Your task to perform on an android device: clear history in the chrome app Image 0: 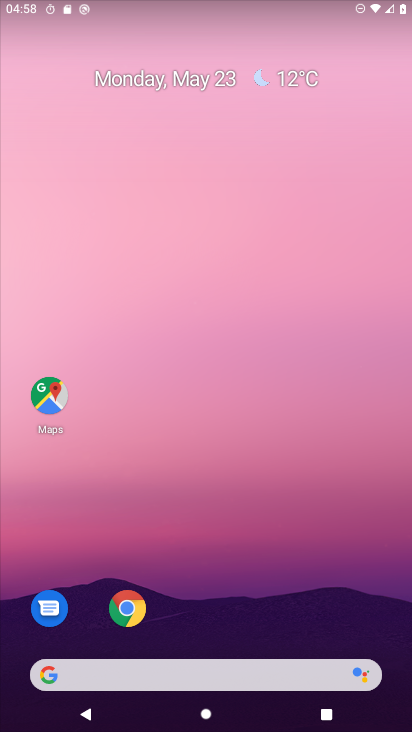
Step 0: click (133, 604)
Your task to perform on an android device: clear history in the chrome app Image 1: 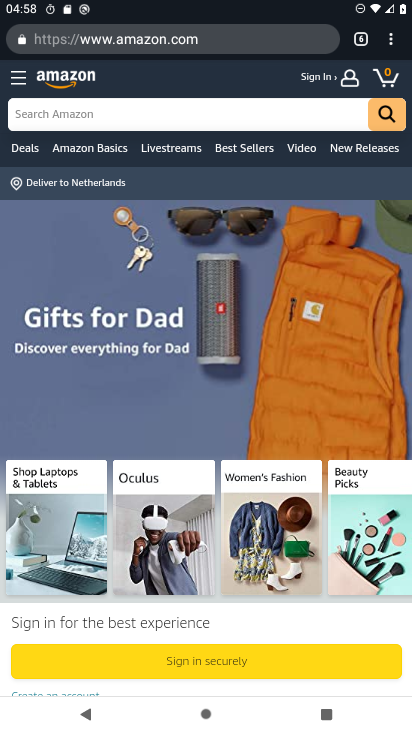
Step 1: click (385, 43)
Your task to perform on an android device: clear history in the chrome app Image 2: 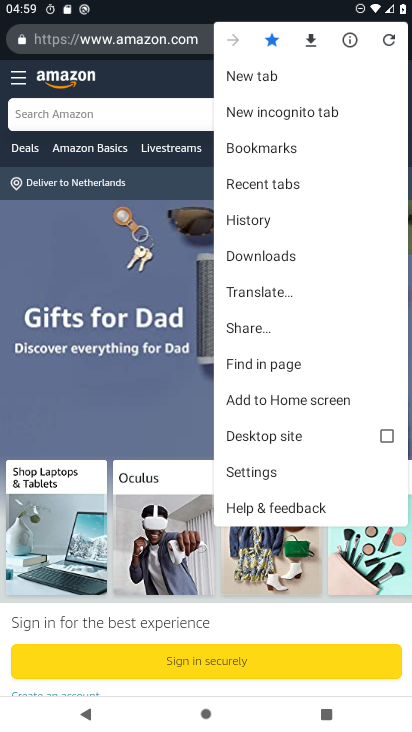
Step 2: click (275, 467)
Your task to perform on an android device: clear history in the chrome app Image 3: 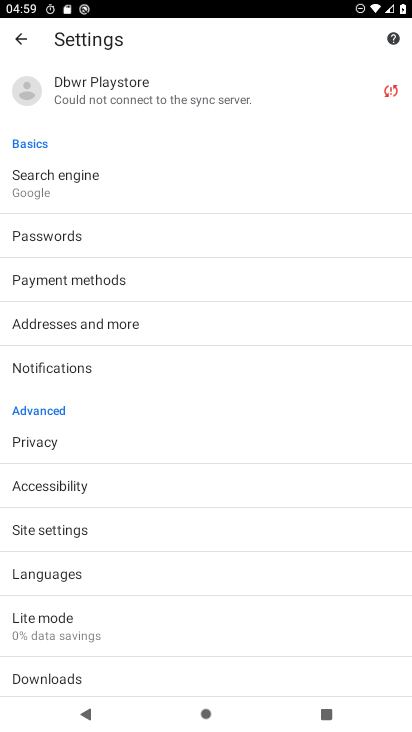
Step 3: click (30, 39)
Your task to perform on an android device: clear history in the chrome app Image 4: 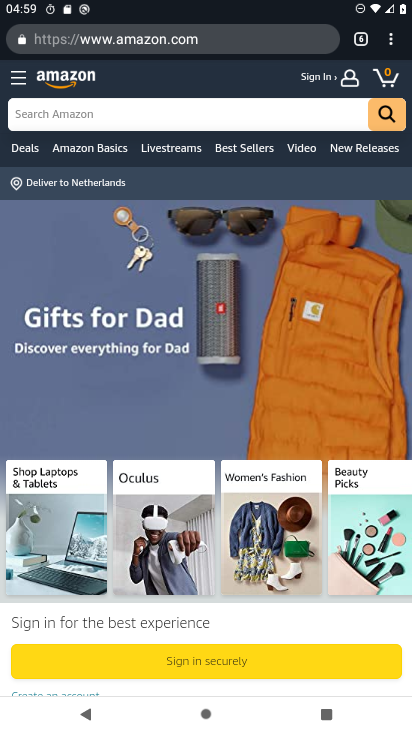
Step 4: click (397, 30)
Your task to perform on an android device: clear history in the chrome app Image 5: 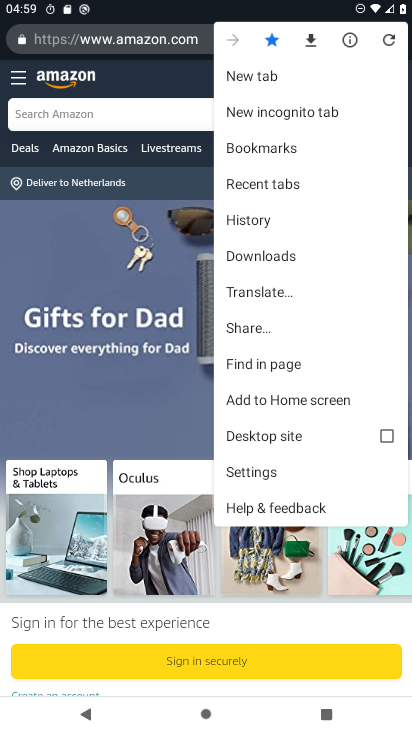
Step 5: click (287, 211)
Your task to perform on an android device: clear history in the chrome app Image 6: 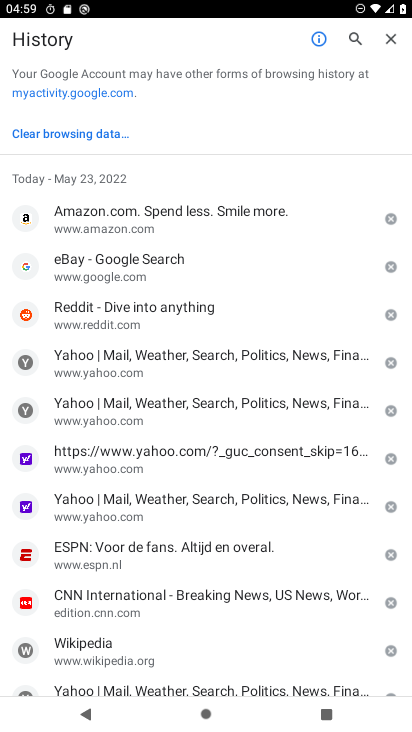
Step 6: click (62, 100)
Your task to perform on an android device: clear history in the chrome app Image 7: 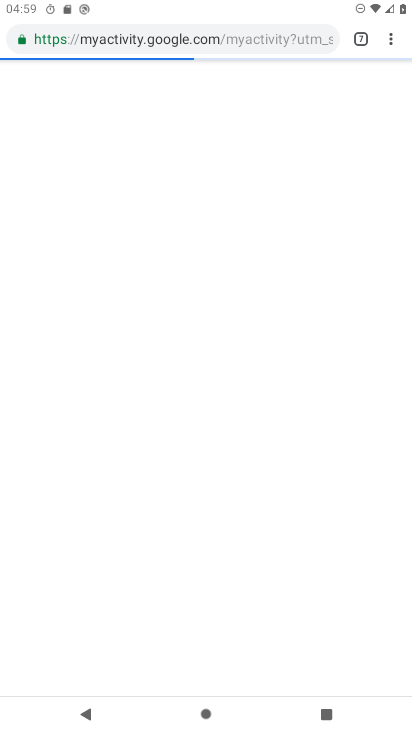
Step 7: click (61, 130)
Your task to perform on an android device: clear history in the chrome app Image 8: 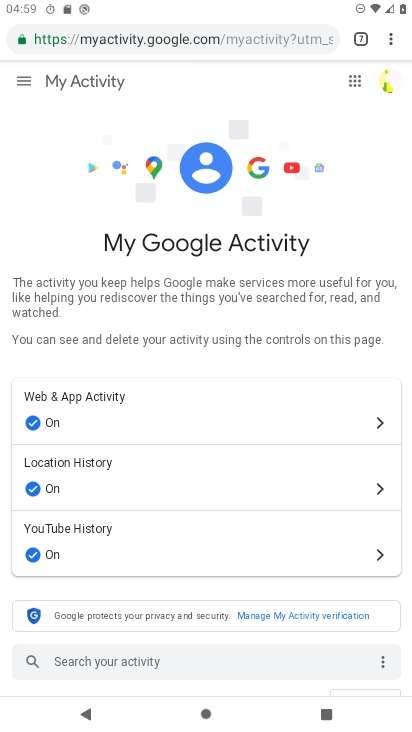
Step 8: press back button
Your task to perform on an android device: clear history in the chrome app Image 9: 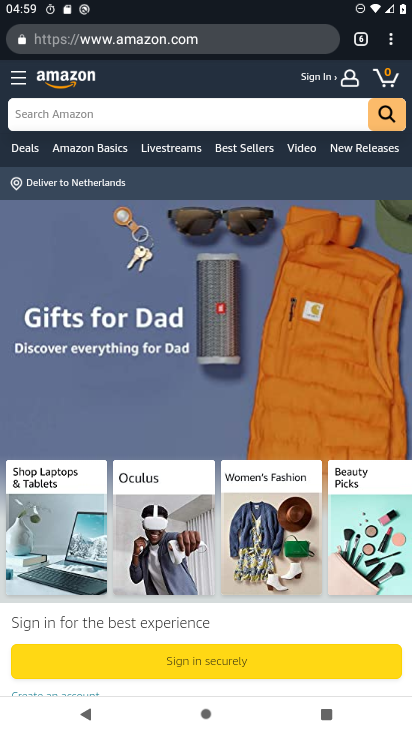
Step 9: click (387, 46)
Your task to perform on an android device: clear history in the chrome app Image 10: 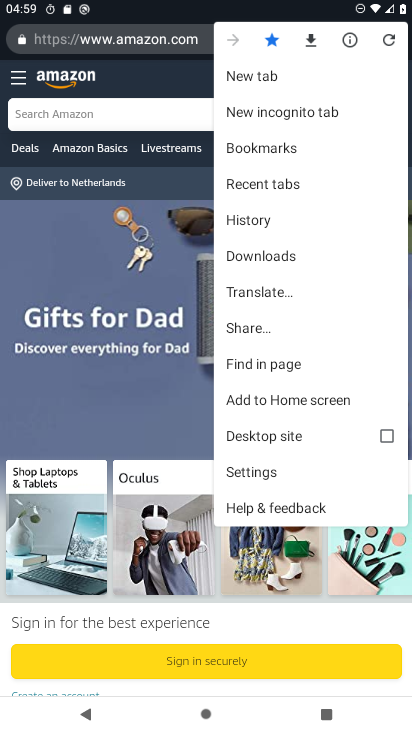
Step 10: click (263, 224)
Your task to perform on an android device: clear history in the chrome app Image 11: 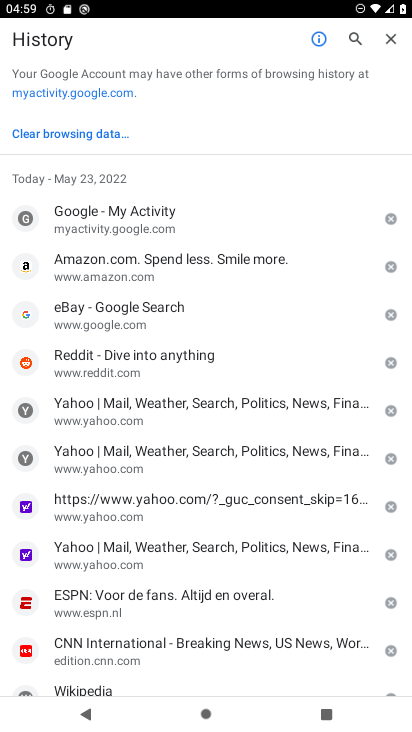
Step 11: click (39, 136)
Your task to perform on an android device: clear history in the chrome app Image 12: 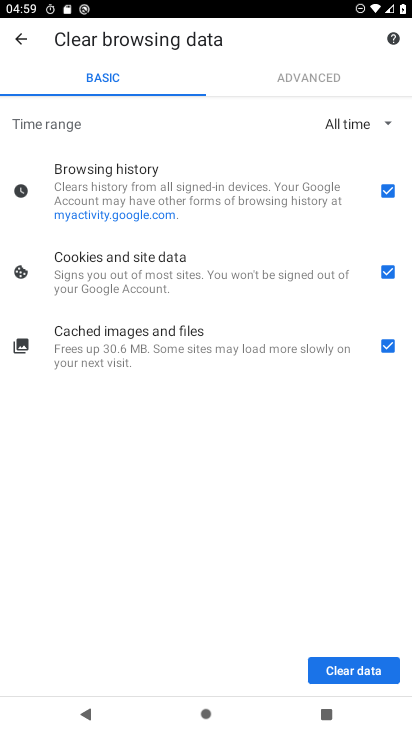
Step 12: click (354, 675)
Your task to perform on an android device: clear history in the chrome app Image 13: 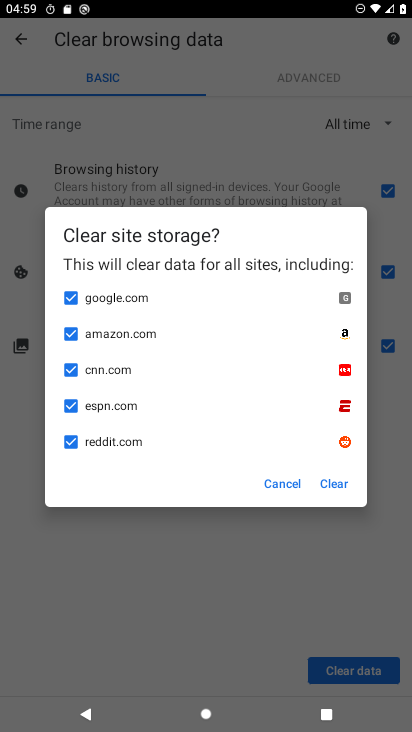
Step 13: click (340, 479)
Your task to perform on an android device: clear history in the chrome app Image 14: 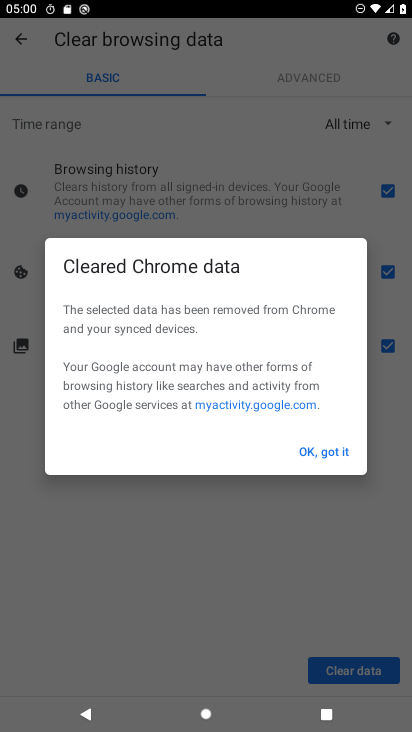
Step 14: click (328, 451)
Your task to perform on an android device: clear history in the chrome app Image 15: 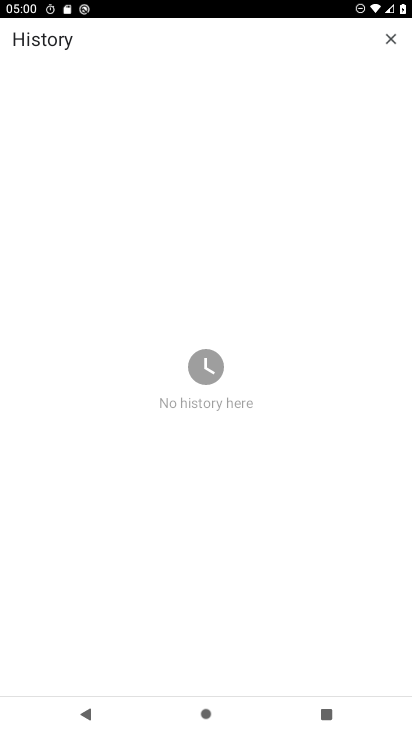
Step 15: task complete